Your task to perform on an android device: turn on data saver in the chrome app Image 0: 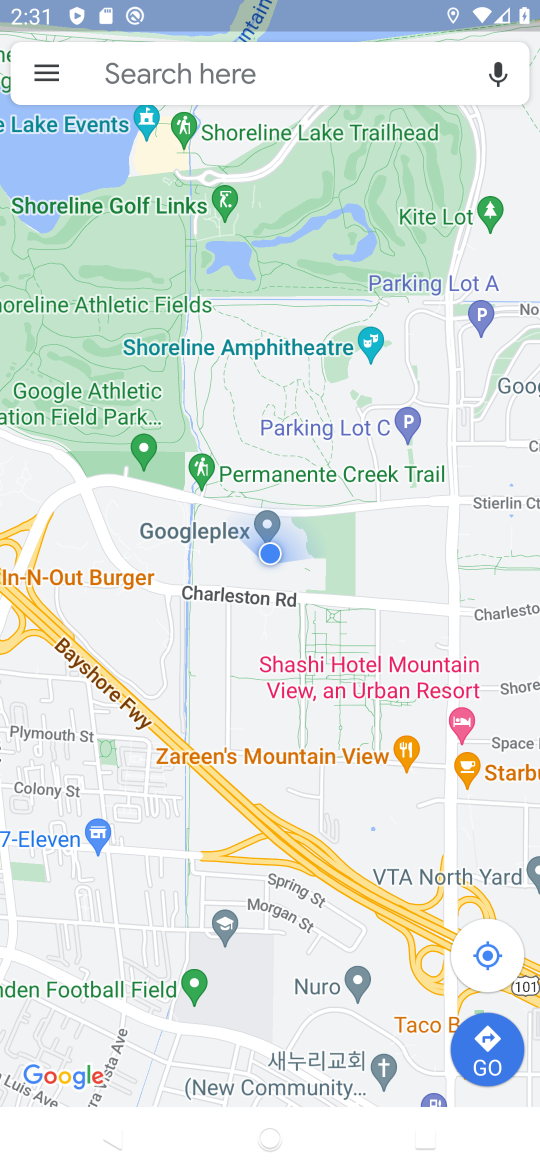
Step 0: press home button
Your task to perform on an android device: turn on data saver in the chrome app Image 1: 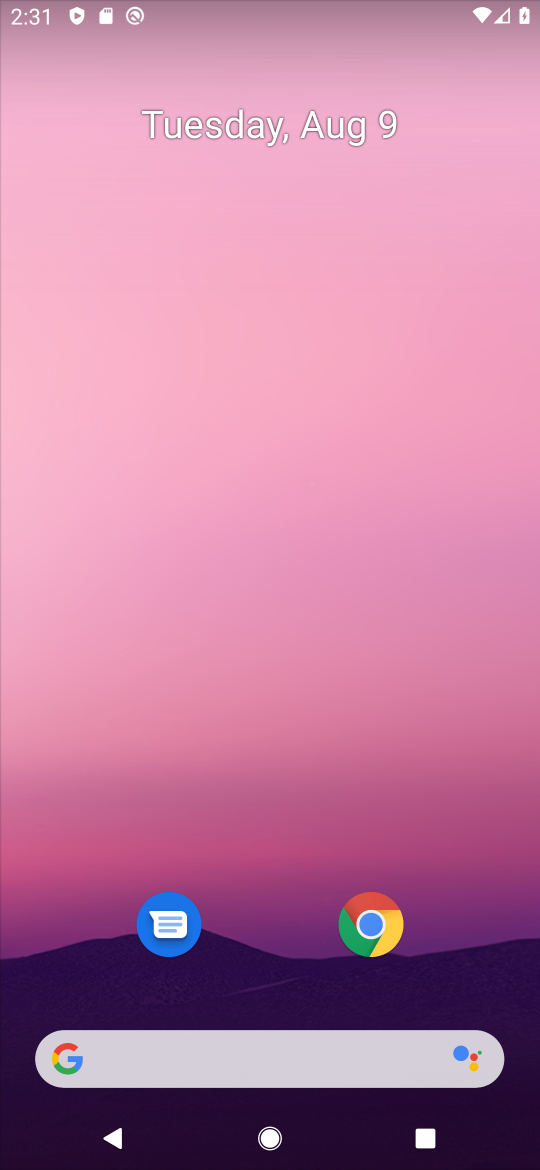
Step 1: click (375, 930)
Your task to perform on an android device: turn on data saver in the chrome app Image 2: 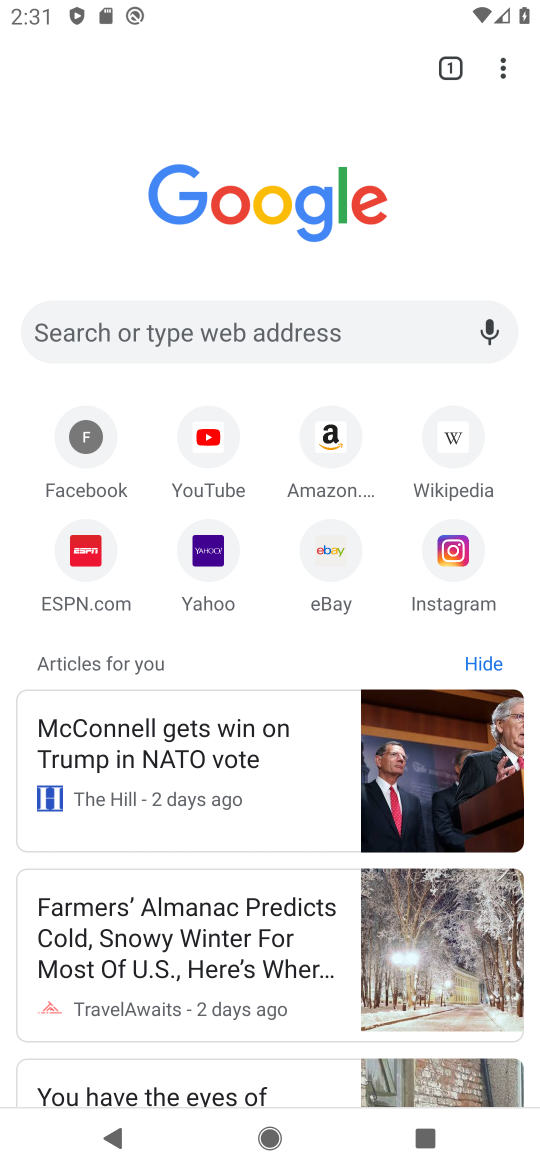
Step 2: click (502, 68)
Your task to perform on an android device: turn on data saver in the chrome app Image 3: 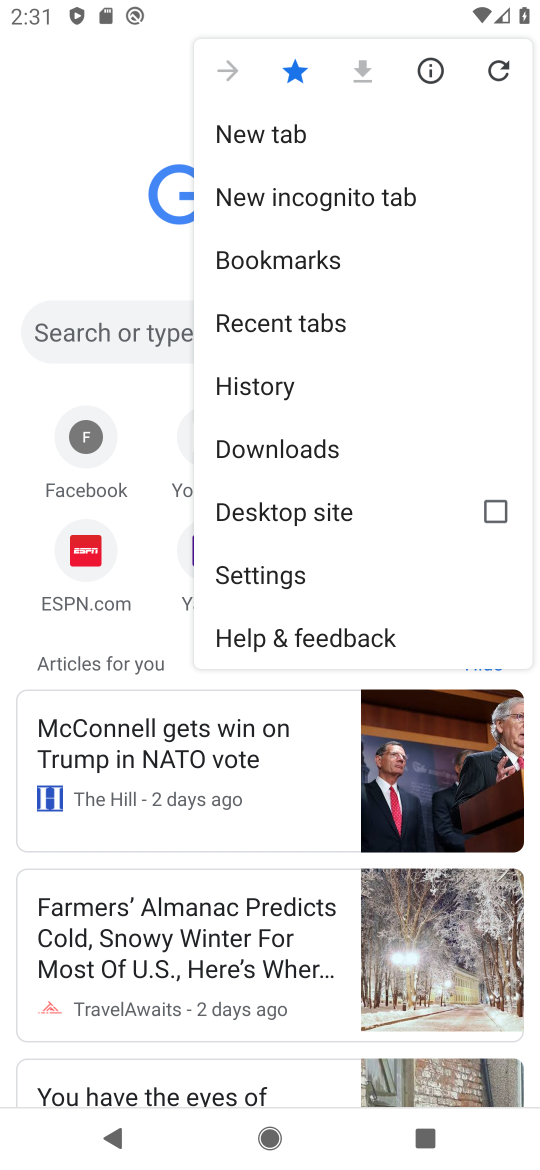
Step 3: click (297, 574)
Your task to perform on an android device: turn on data saver in the chrome app Image 4: 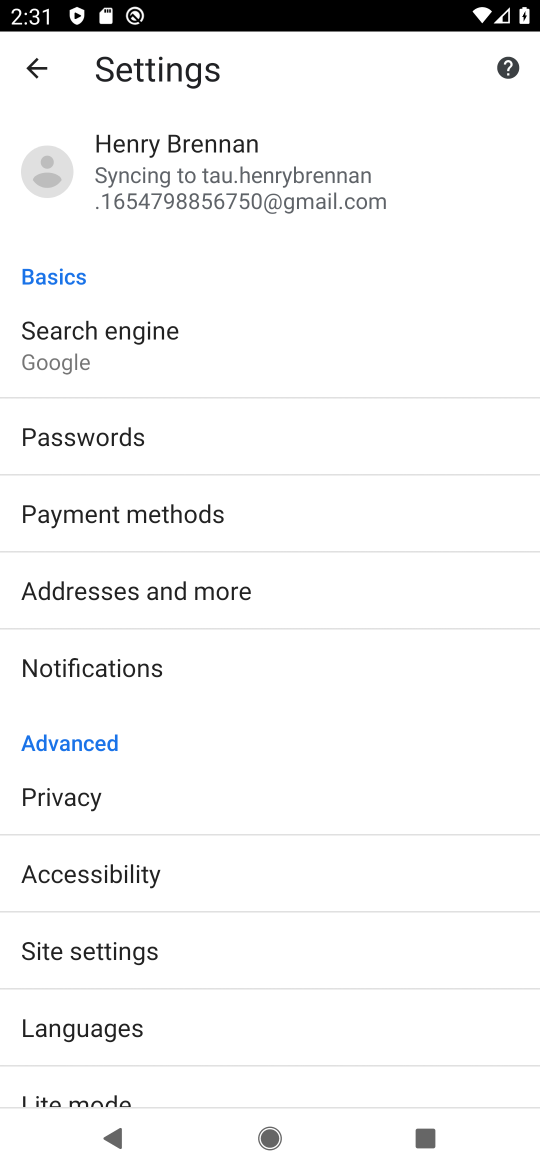
Step 4: drag from (316, 972) to (323, 500)
Your task to perform on an android device: turn on data saver in the chrome app Image 5: 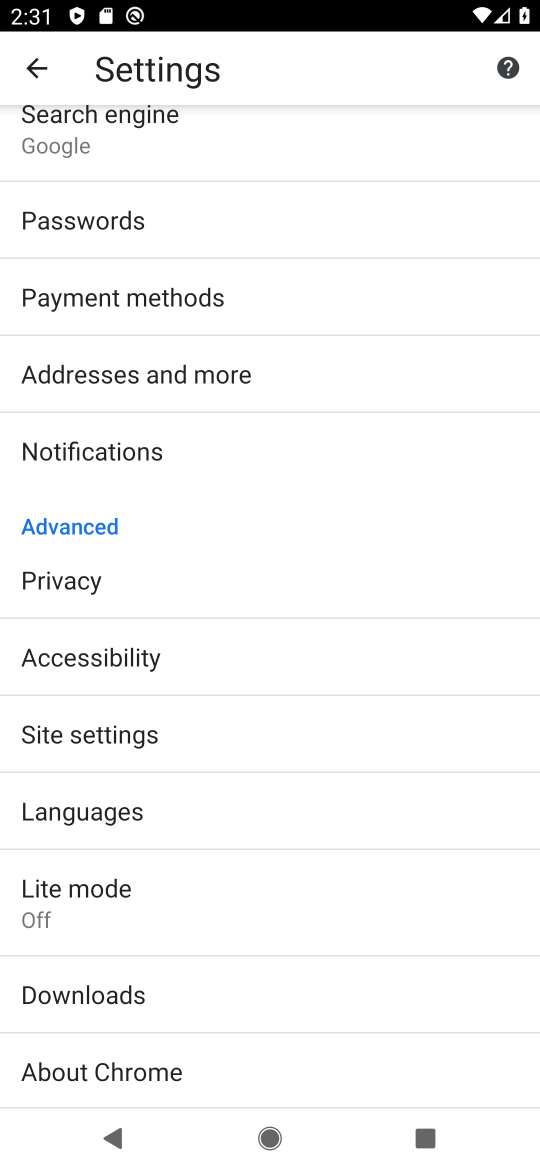
Step 5: click (137, 901)
Your task to perform on an android device: turn on data saver in the chrome app Image 6: 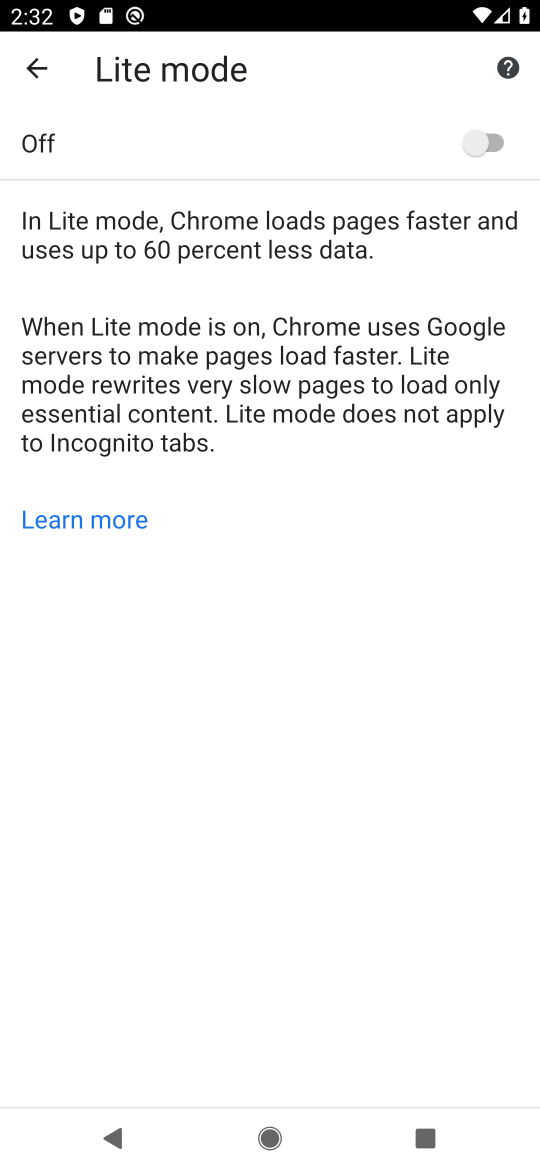
Step 6: click (487, 129)
Your task to perform on an android device: turn on data saver in the chrome app Image 7: 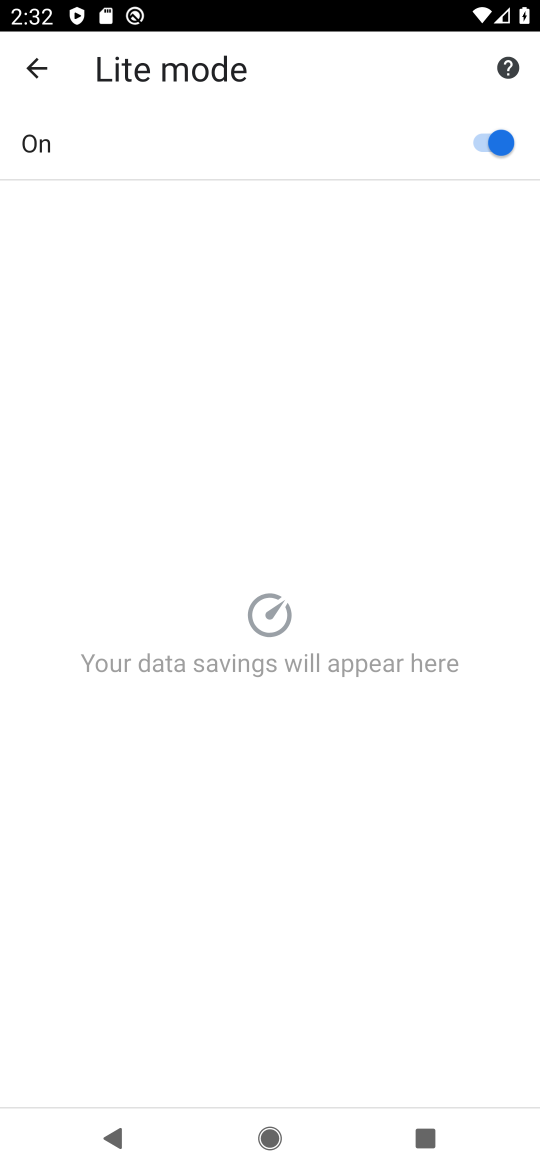
Step 7: task complete